Your task to perform on an android device: toggle translation in the chrome app Image 0: 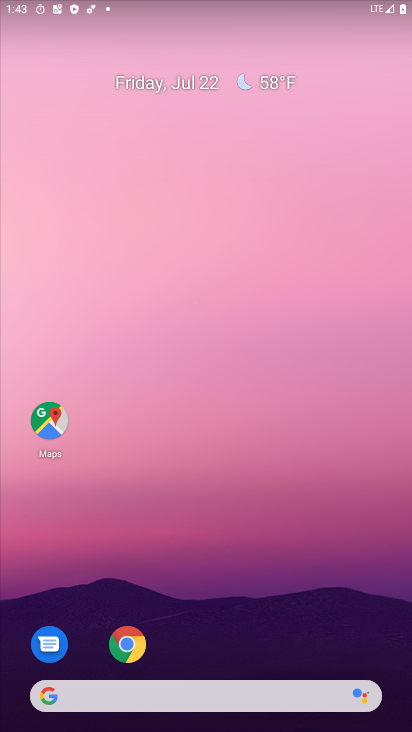
Step 0: drag from (201, 603) to (243, 269)
Your task to perform on an android device: toggle translation in the chrome app Image 1: 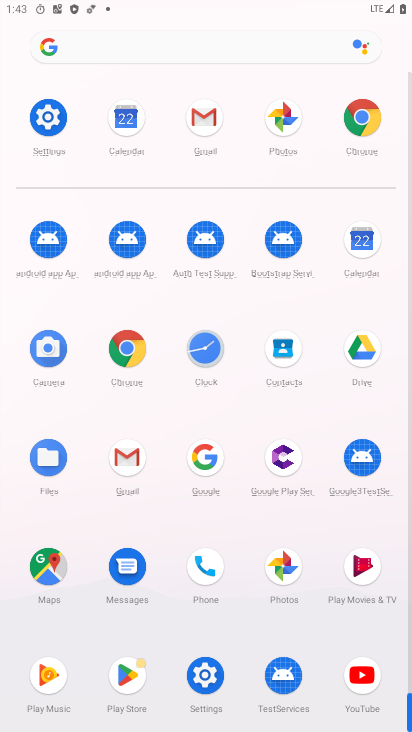
Step 1: click (126, 351)
Your task to perform on an android device: toggle translation in the chrome app Image 2: 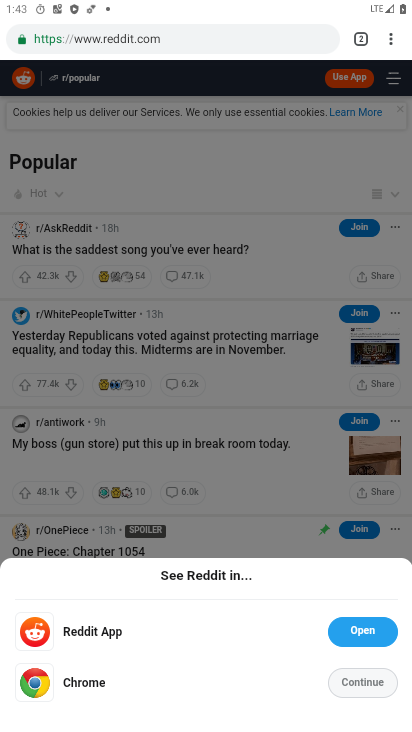
Step 2: drag from (187, 452) to (240, 254)
Your task to perform on an android device: toggle translation in the chrome app Image 3: 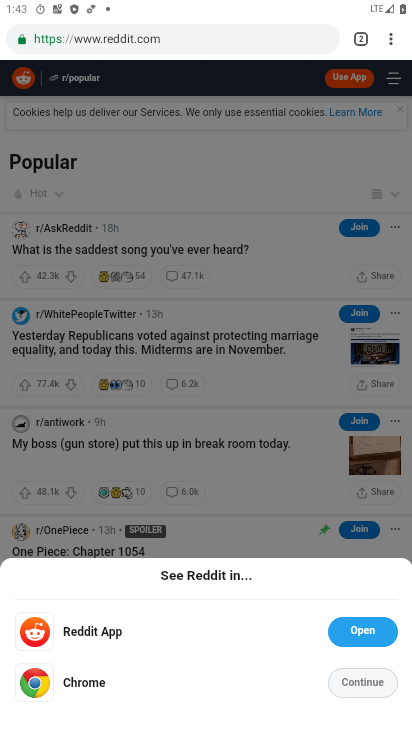
Step 3: drag from (388, 43) to (281, 515)
Your task to perform on an android device: toggle translation in the chrome app Image 4: 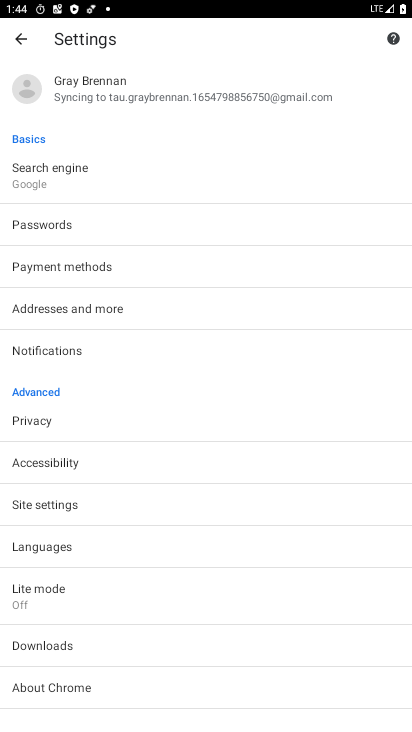
Step 4: drag from (104, 588) to (176, 209)
Your task to perform on an android device: toggle translation in the chrome app Image 5: 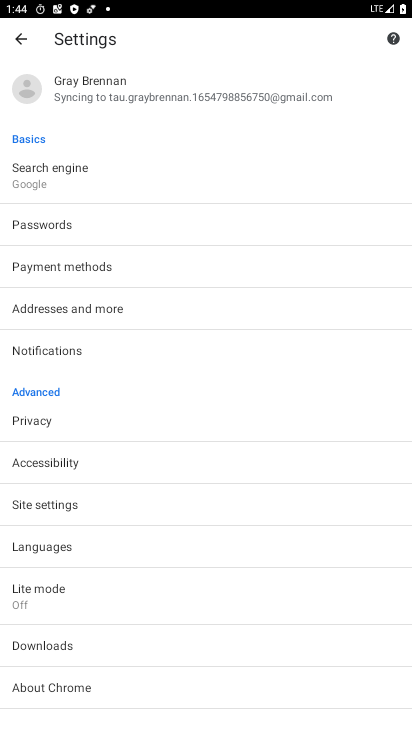
Step 5: click (105, 546)
Your task to perform on an android device: toggle translation in the chrome app Image 6: 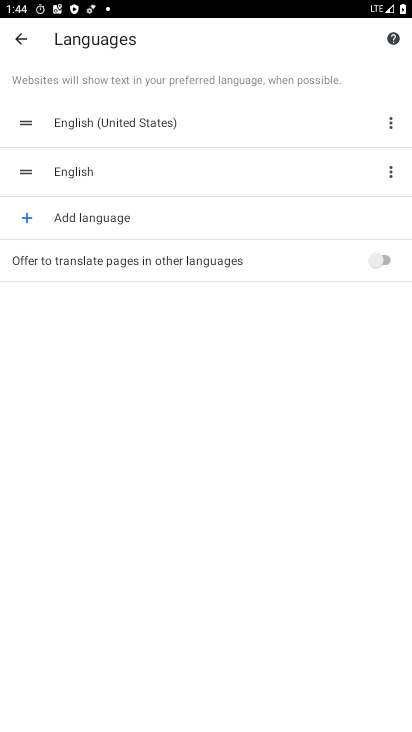
Step 6: click (267, 269)
Your task to perform on an android device: toggle translation in the chrome app Image 7: 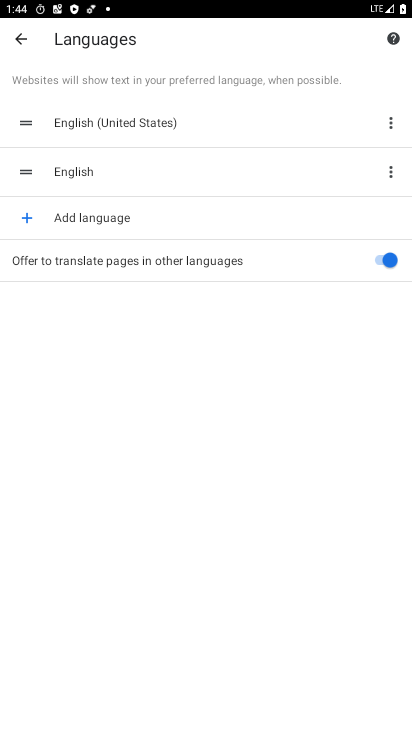
Step 7: task complete